Your task to perform on an android device: turn pop-ups off in chrome Image 0: 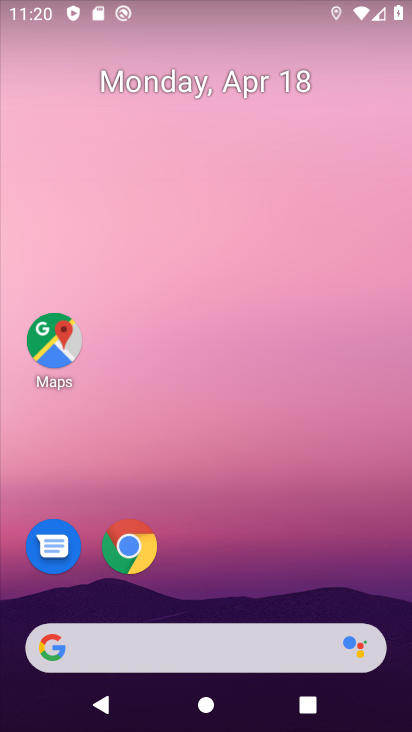
Step 0: click (137, 570)
Your task to perform on an android device: turn pop-ups off in chrome Image 1: 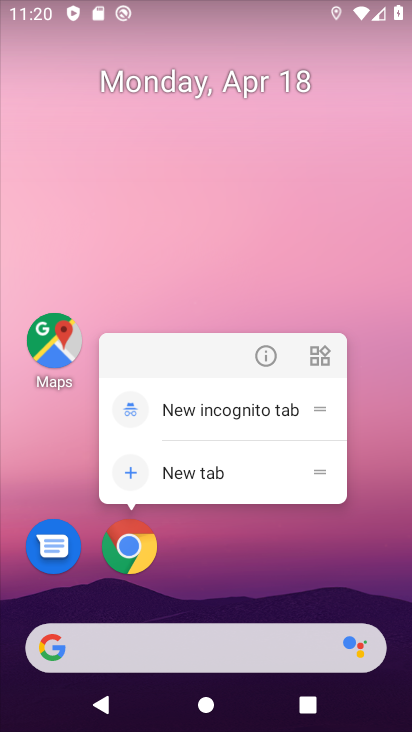
Step 1: click (137, 567)
Your task to perform on an android device: turn pop-ups off in chrome Image 2: 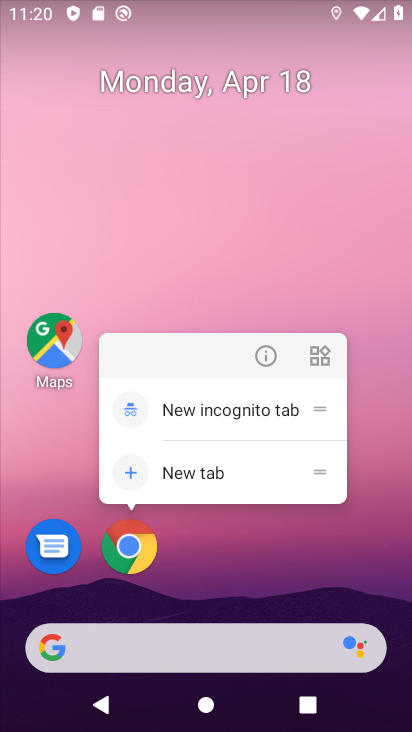
Step 2: click (133, 552)
Your task to perform on an android device: turn pop-ups off in chrome Image 3: 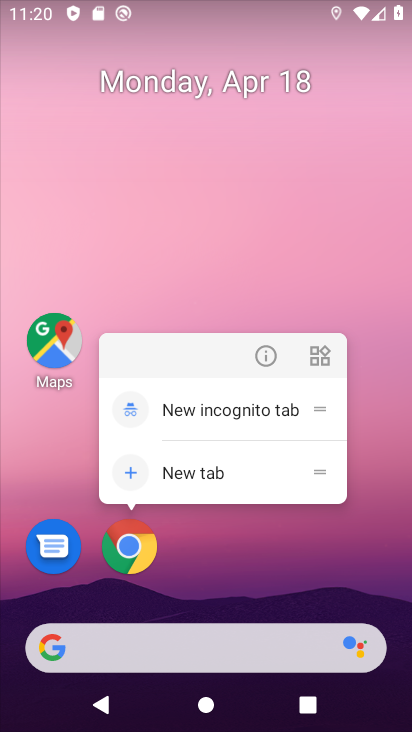
Step 3: click (133, 552)
Your task to perform on an android device: turn pop-ups off in chrome Image 4: 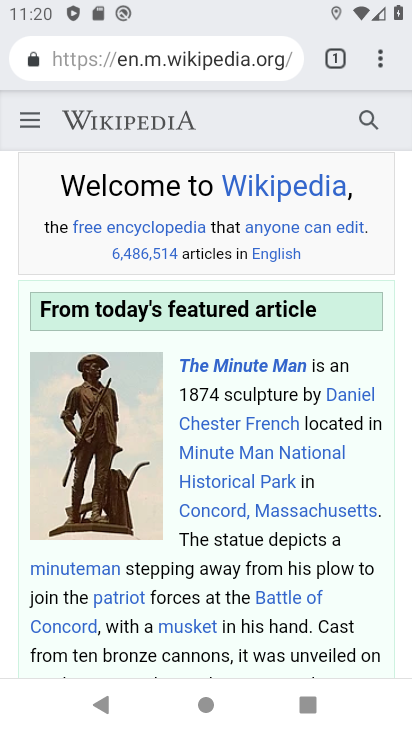
Step 4: click (383, 67)
Your task to perform on an android device: turn pop-ups off in chrome Image 5: 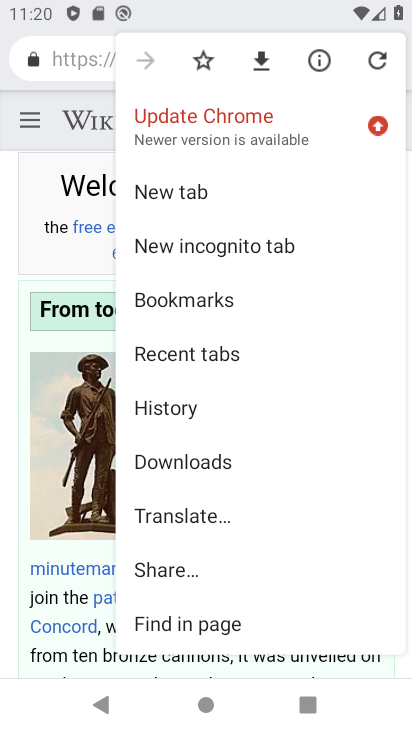
Step 5: drag from (230, 568) to (237, 327)
Your task to perform on an android device: turn pop-ups off in chrome Image 6: 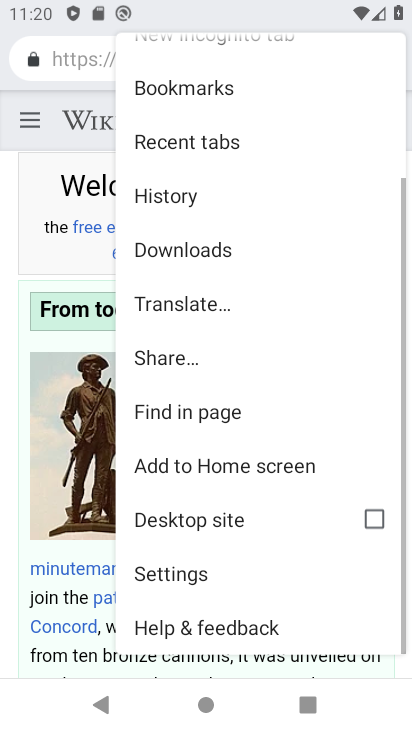
Step 6: click (216, 559)
Your task to perform on an android device: turn pop-ups off in chrome Image 7: 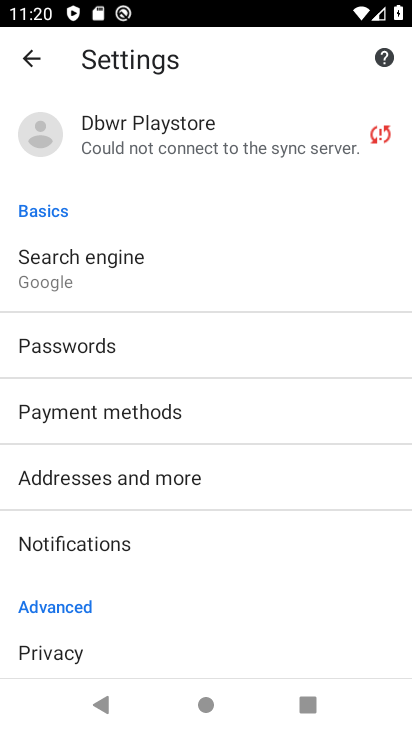
Step 7: drag from (254, 572) to (290, 202)
Your task to perform on an android device: turn pop-ups off in chrome Image 8: 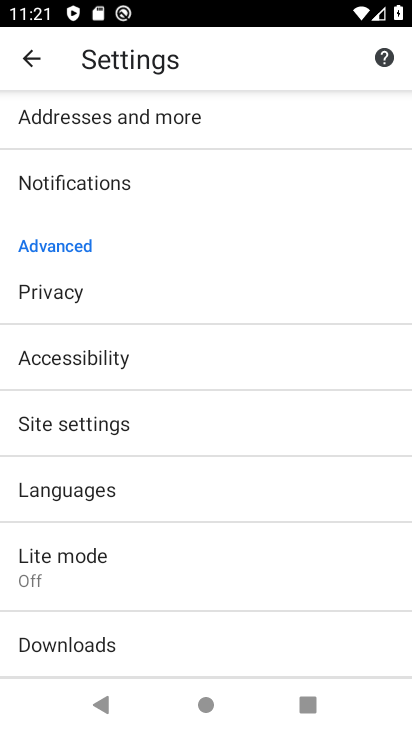
Step 8: click (240, 405)
Your task to perform on an android device: turn pop-ups off in chrome Image 9: 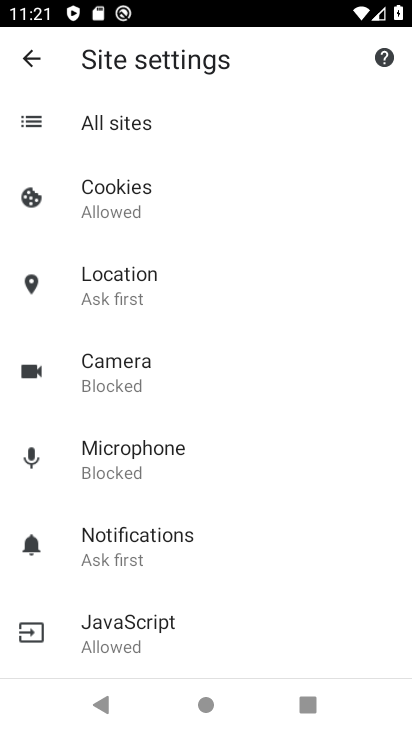
Step 9: drag from (215, 570) to (225, 217)
Your task to perform on an android device: turn pop-ups off in chrome Image 10: 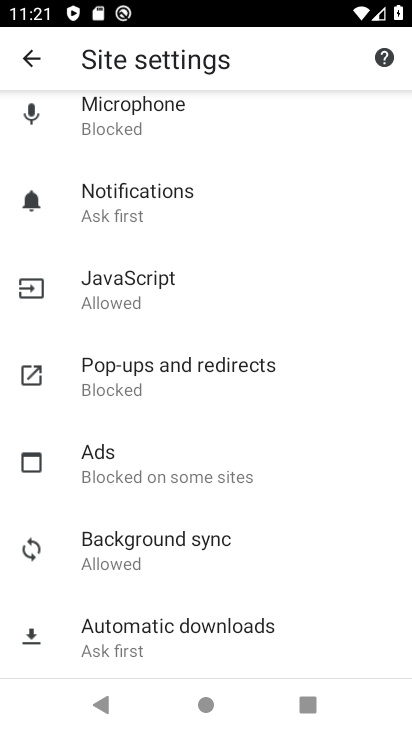
Step 10: click (212, 392)
Your task to perform on an android device: turn pop-ups off in chrome Image 11: 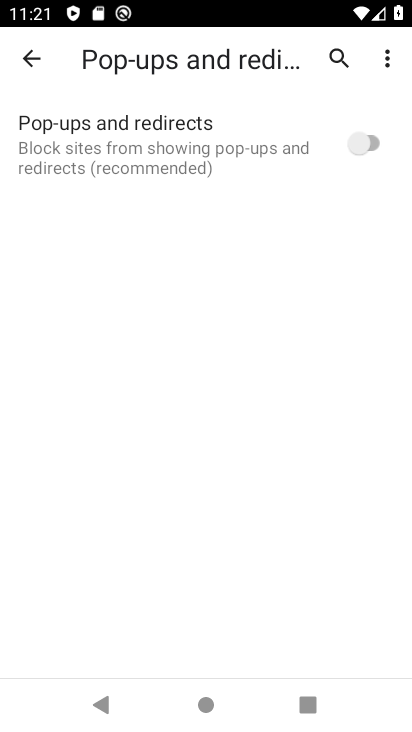
Step 11: click (363, 139)
Your task to perform on an android device: turn pop-ups off in chrome Image 12: 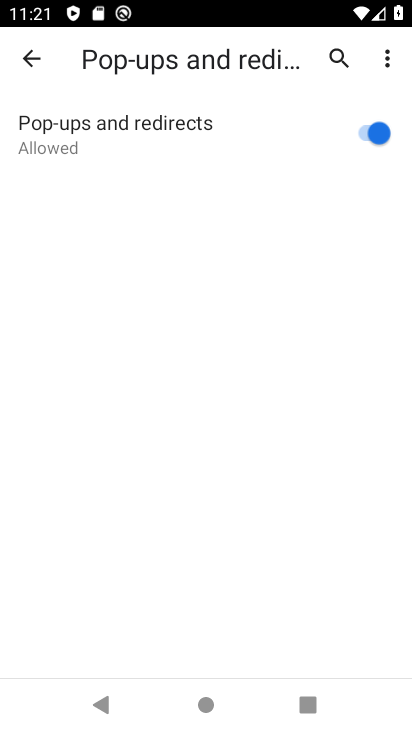
Step 12: task complete